Your task to perform on an android device: Open internet settings Image 0: 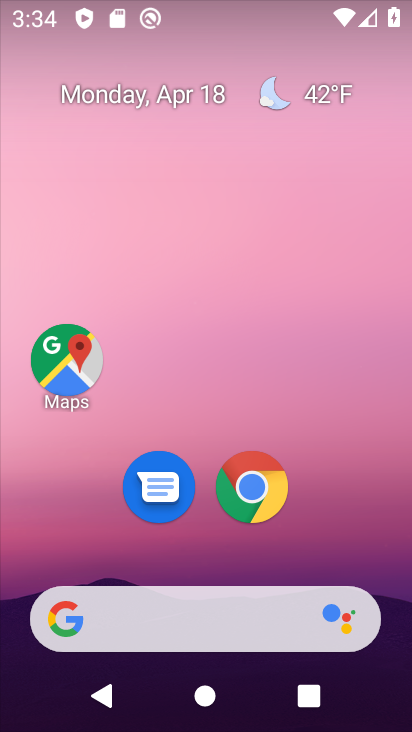
Step 0: drag from (213, 530) to (215, 105)
Your task to perform on an android device: Open internet settings Image 1: 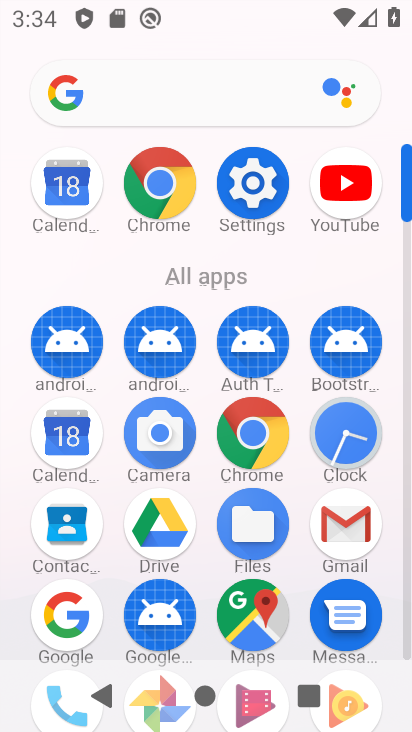
Step 1: click (257, 181)
Your task to perform on an android device: Open internet settings Image 2: 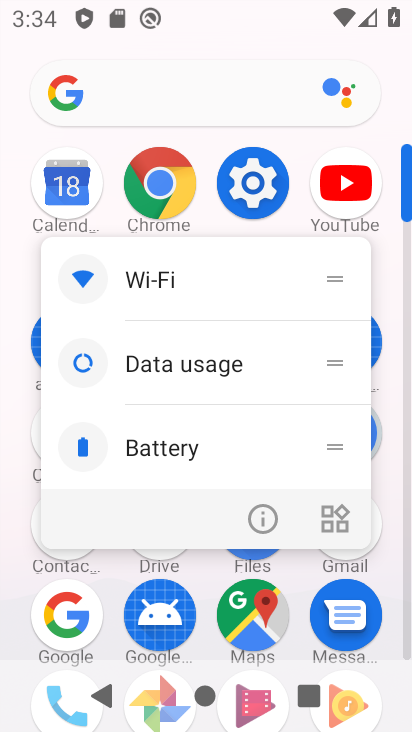
Step 2: click (248, 196)
Your task to perform on an android device: Open internet settings Image 3: 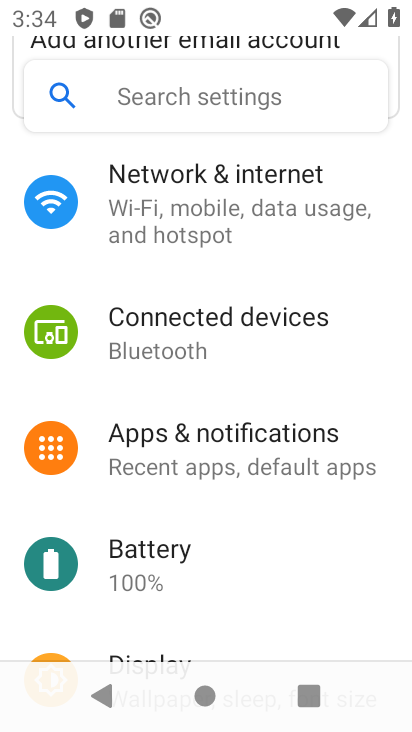
Step 3: click (238, 219)
Your task to perform on an android device: Open internet settings Image 4: 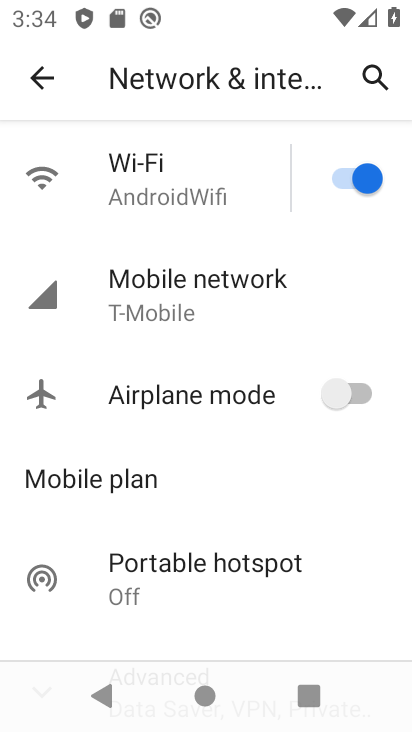
Step 4: task complete